Your task to perform on an android device: change text size in settings app Image 0: 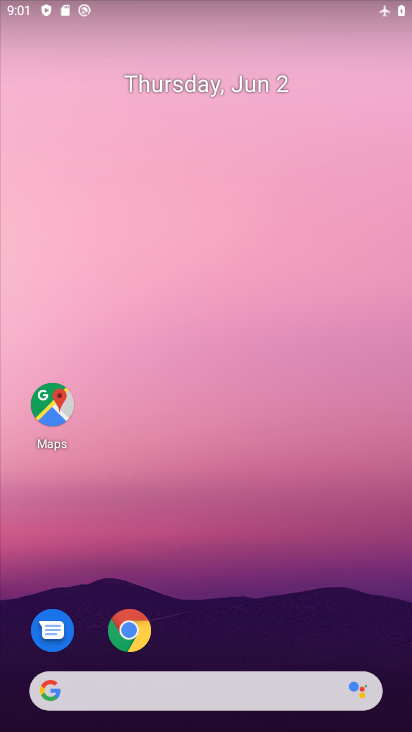
Step 0: drag from (202, 604) to (226, 6)
Your task to perform on an android device: change text size in settings app Image 1: 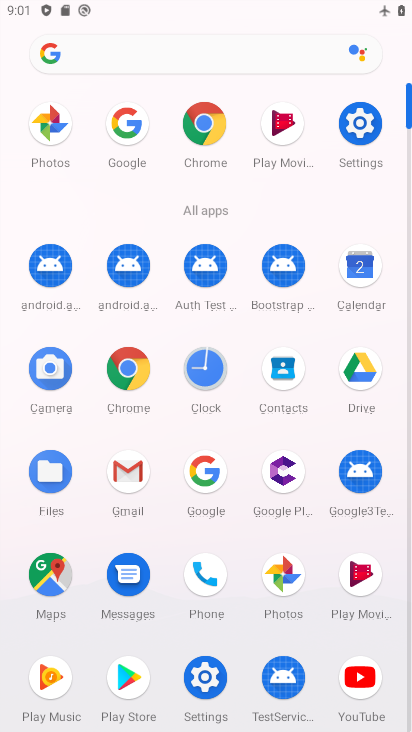
Step 1: click (363, 122)
Your task to perform on an android device: change text size in settings app Image 2: 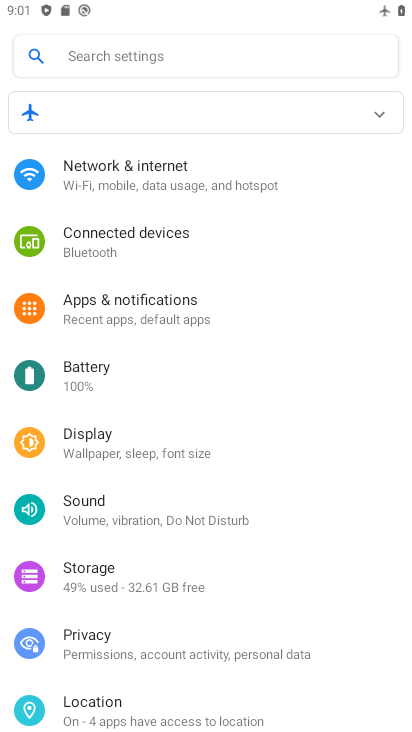
Step 2: drag from (144, 596) to (134, 422)
Your task to perform on an android device: change text size in settings app Image 3: 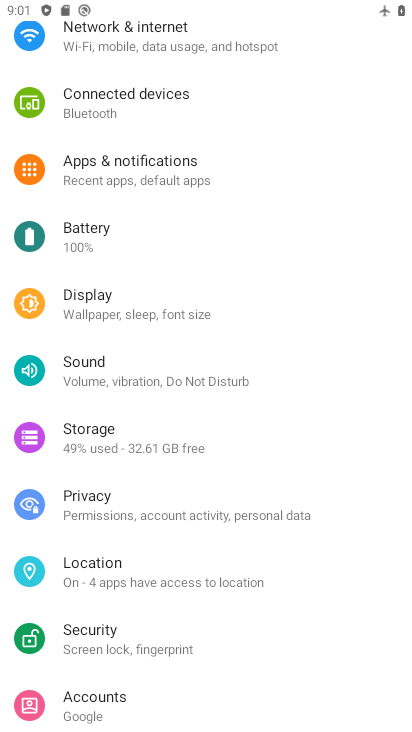
Step 3: click (116, 286)
Your task to perform on an android device: change text size in settings app Image 4: 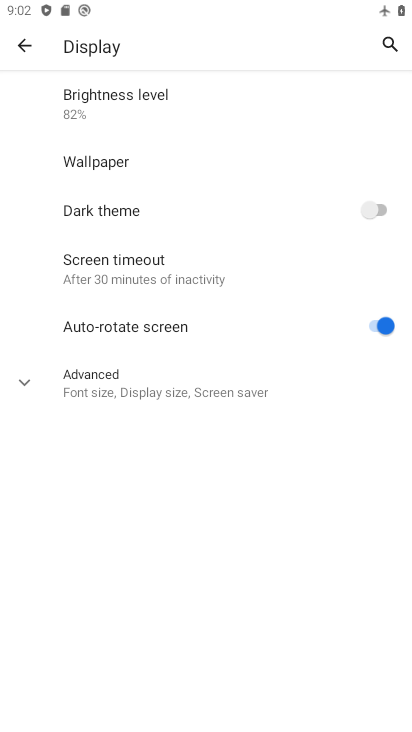
Step 4: click (92, 382)
Your task to perform on an android device: change text size in settings app Image 5: 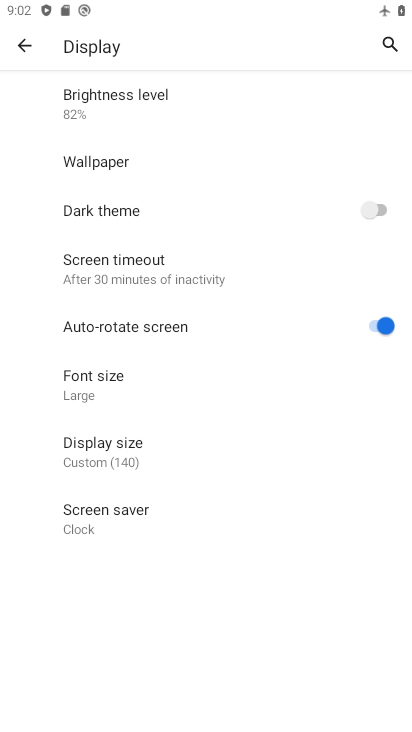
Step 5: click (134, 396)
Your task to perform on an android device: change text size in settings app Image 6: 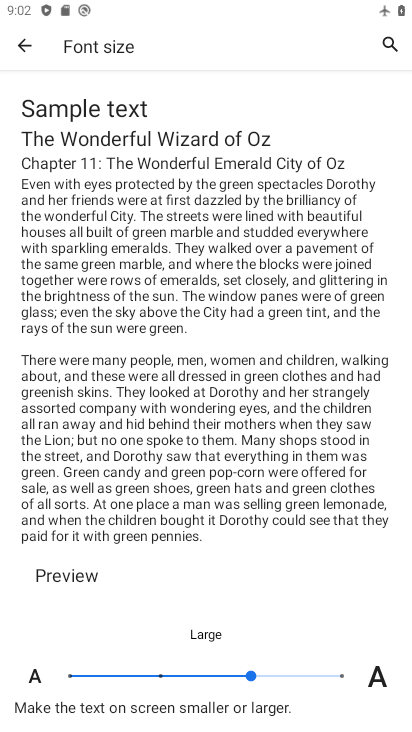
Step 6: task complete